Your task to perform on an android device: Open Chrome and go to settings Image 0: 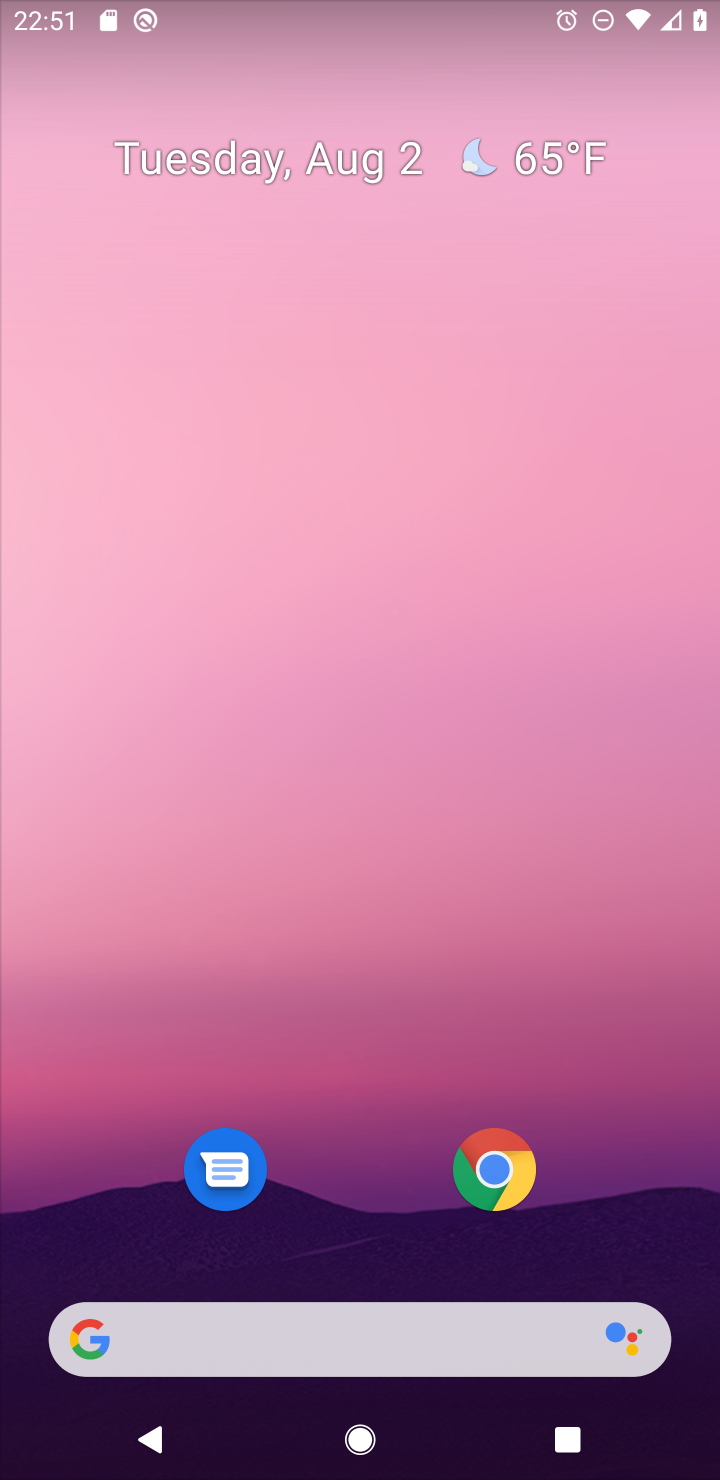
Step 0: click (503, 1174)
Your task to perform on an android device: Open Chrome and go to settings Image 1: 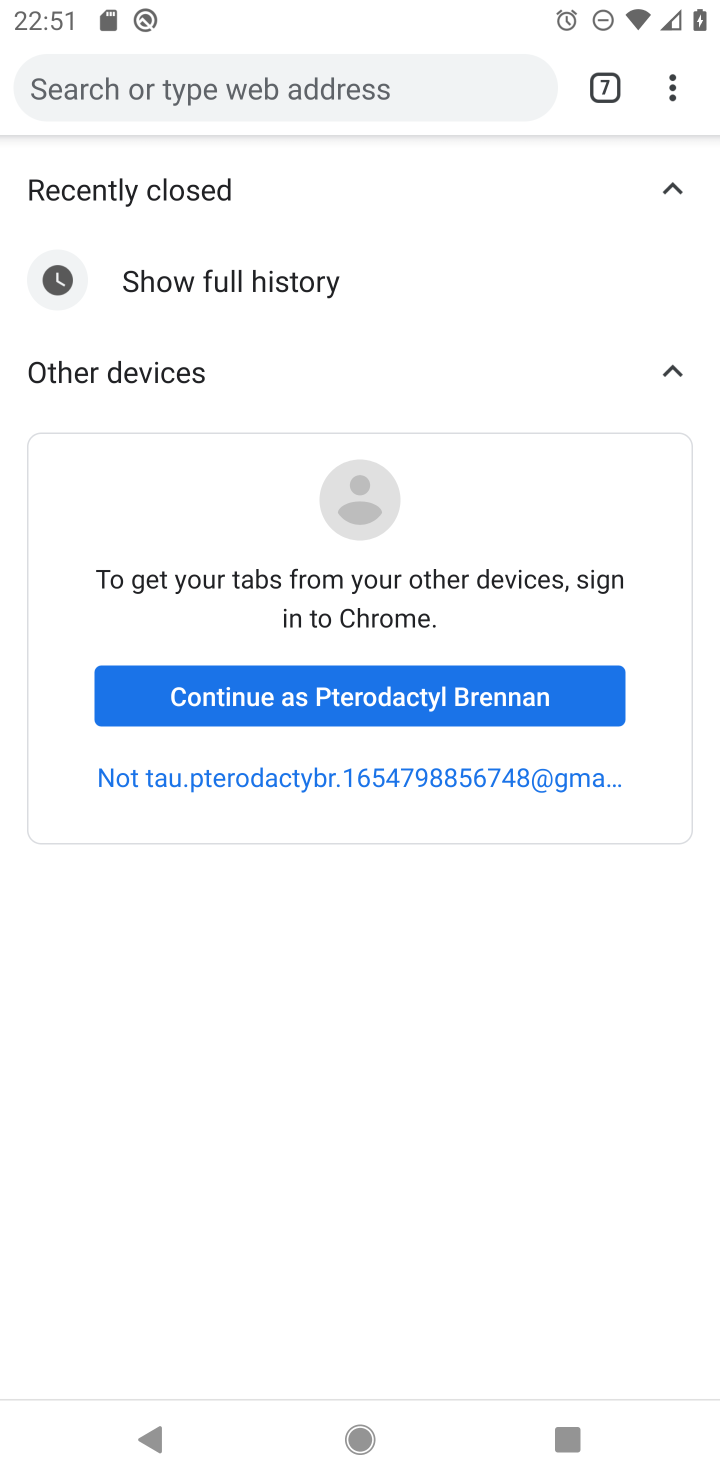
Step 1: click (669, 95)
Your task to perform on an android device: Open Chrome and go to settings Image 2: 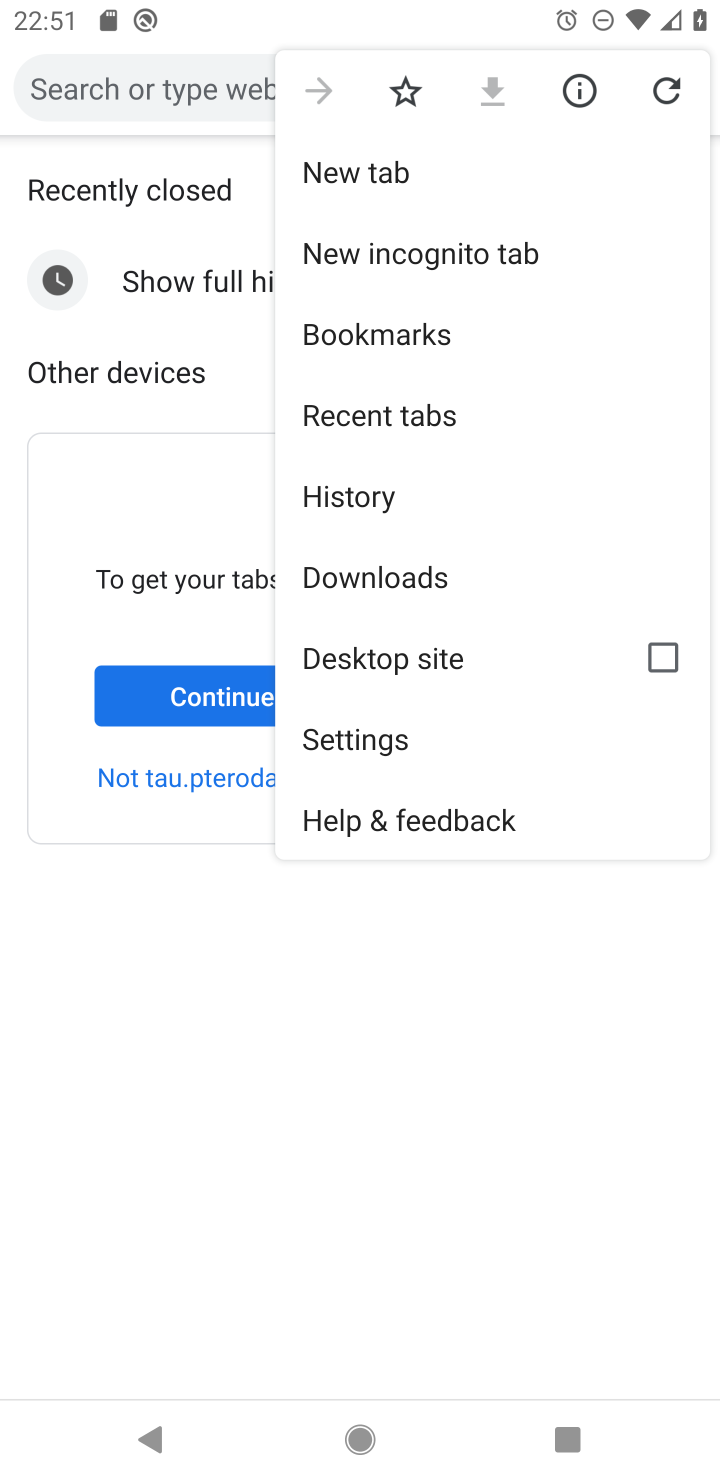
Step 2: click (351, 734)
Your task to perform on an android device: Open Chrome and go to settings Image 3: 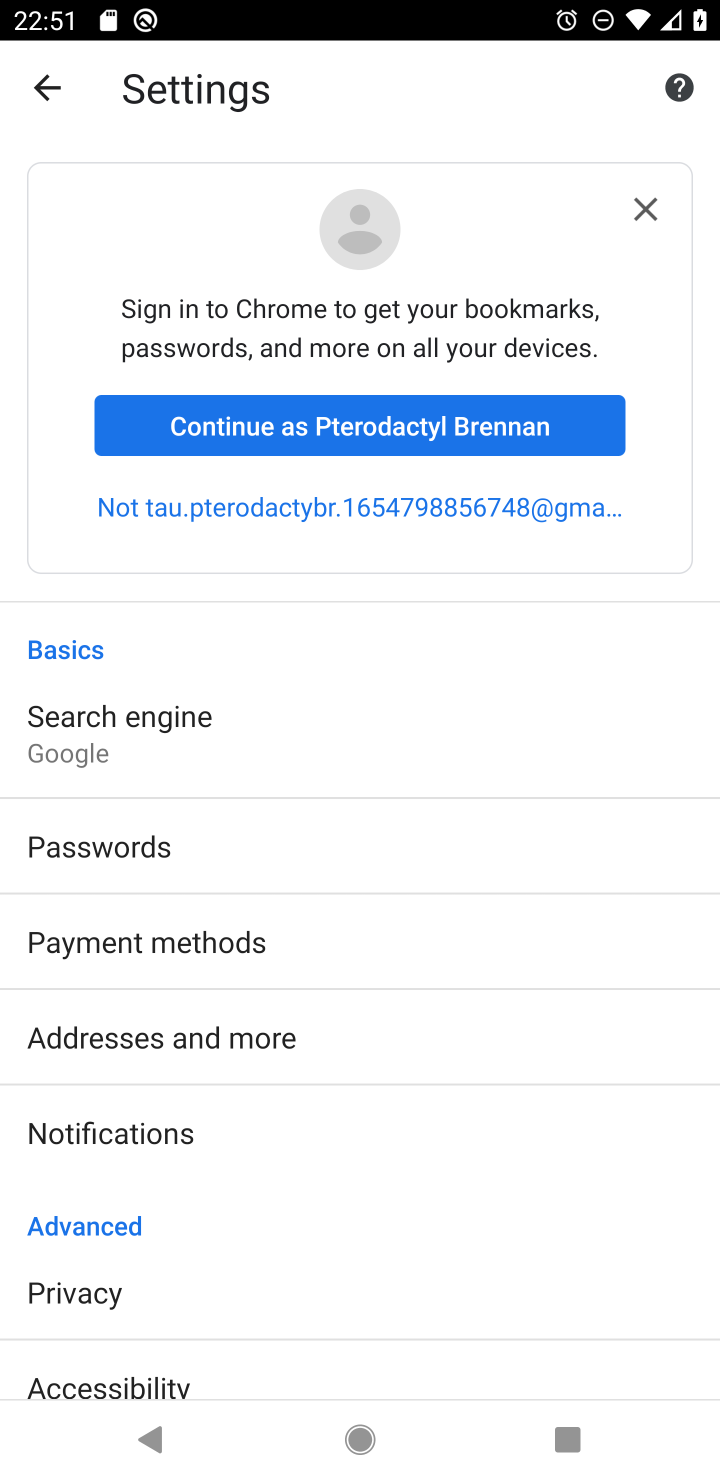
Step 3: task complete